Your task to perform on an android device: Check the weather Image 0: 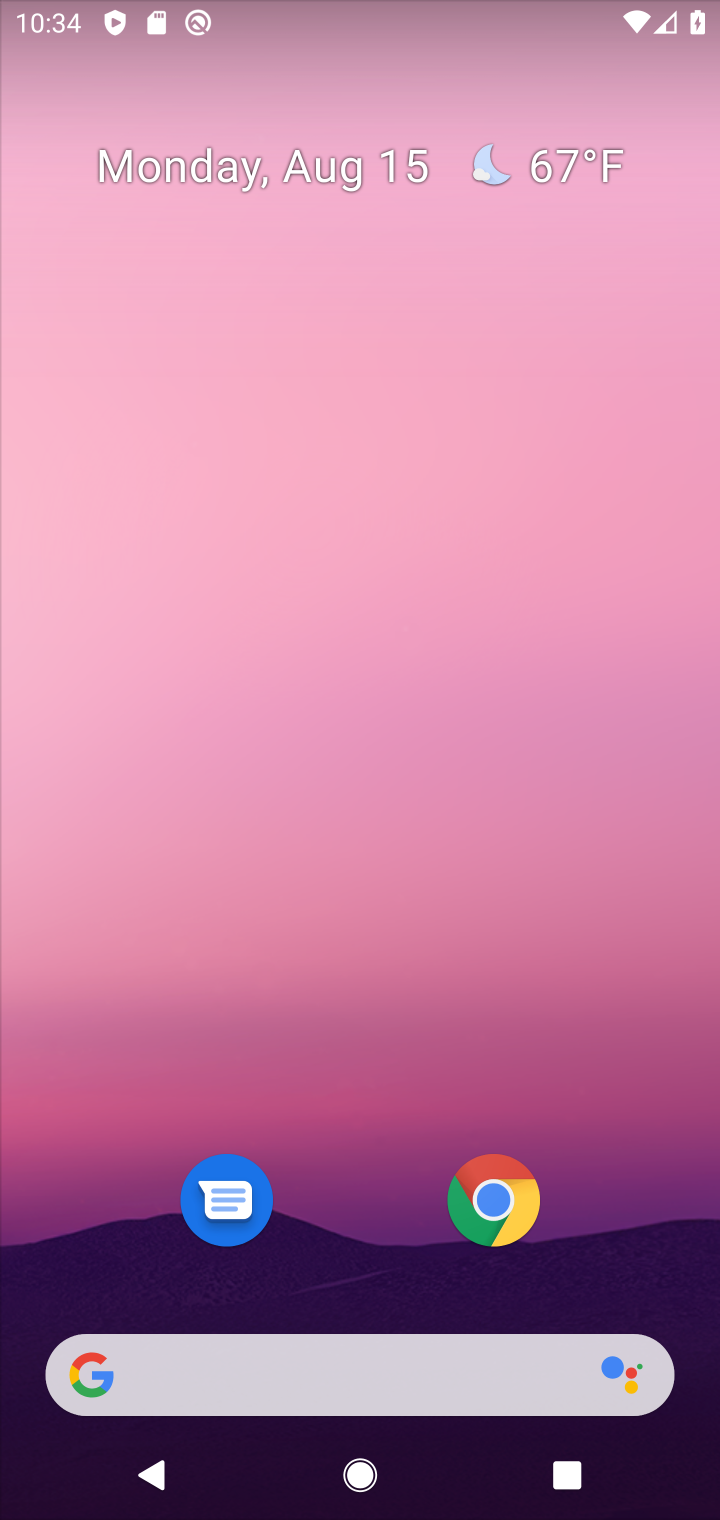
Step 0: click (558, 164)
Your task to perform on an android device: Check the weather Image 1: 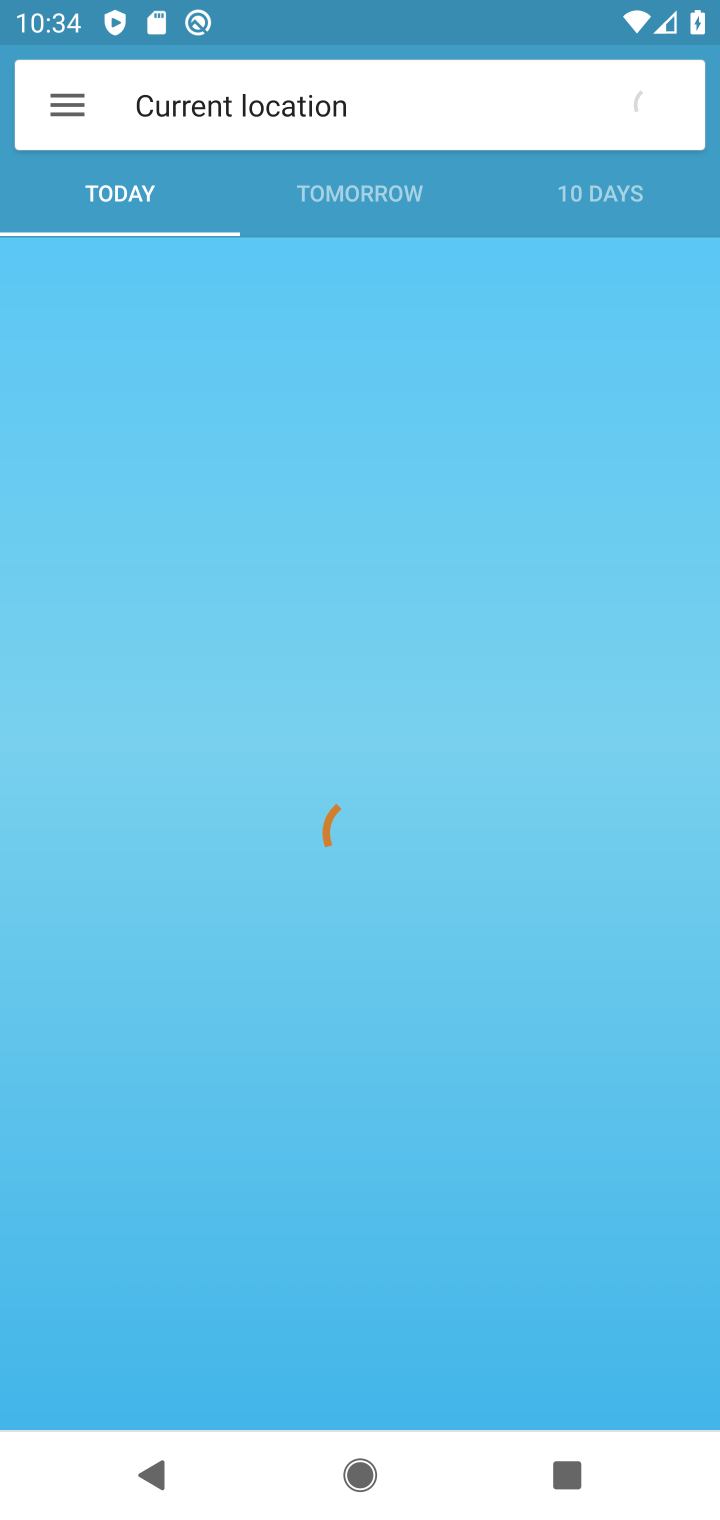
Step 1: click (558, 166)
Your task to perform on an android device: Check the weather Image 2: 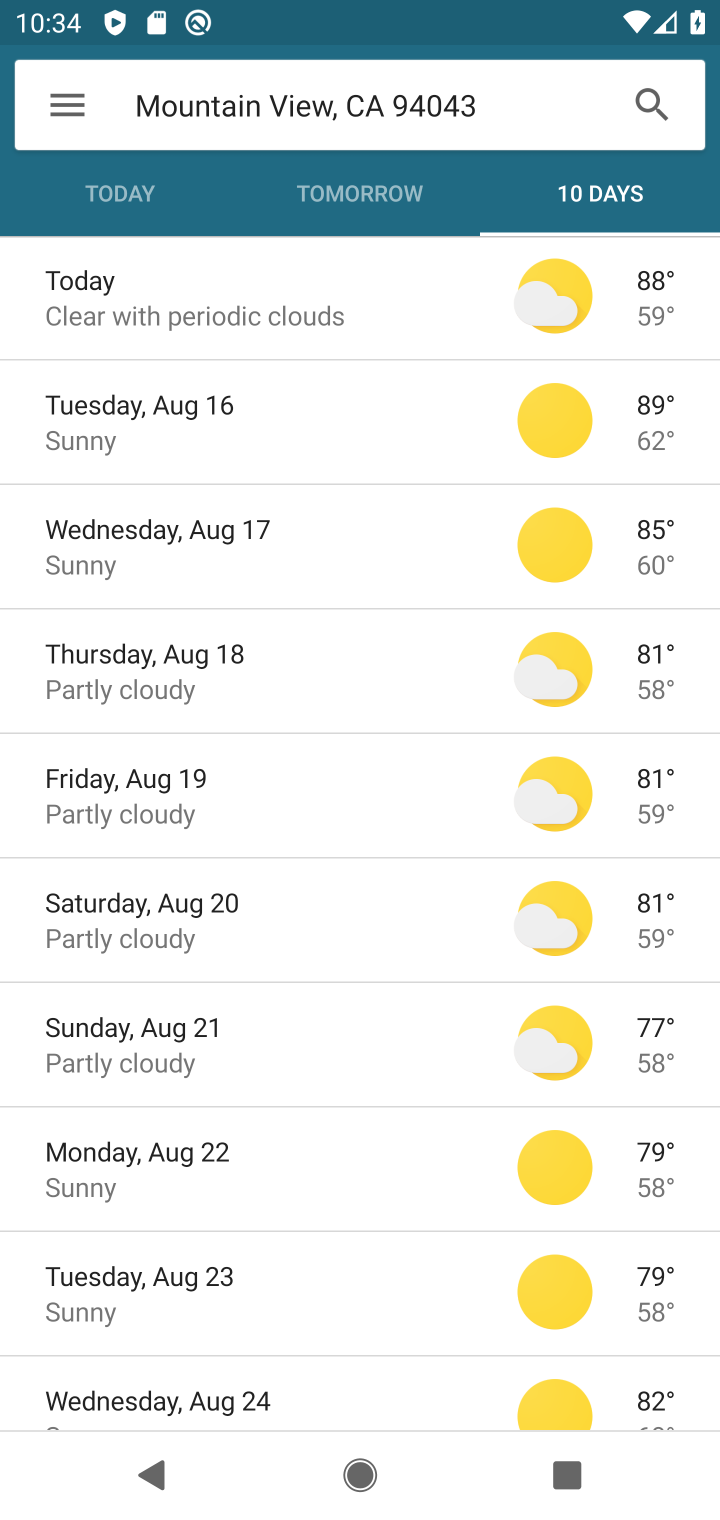
Step 2: click (93, 199)
Your task to perform on an android device: Check the weather Image 3: 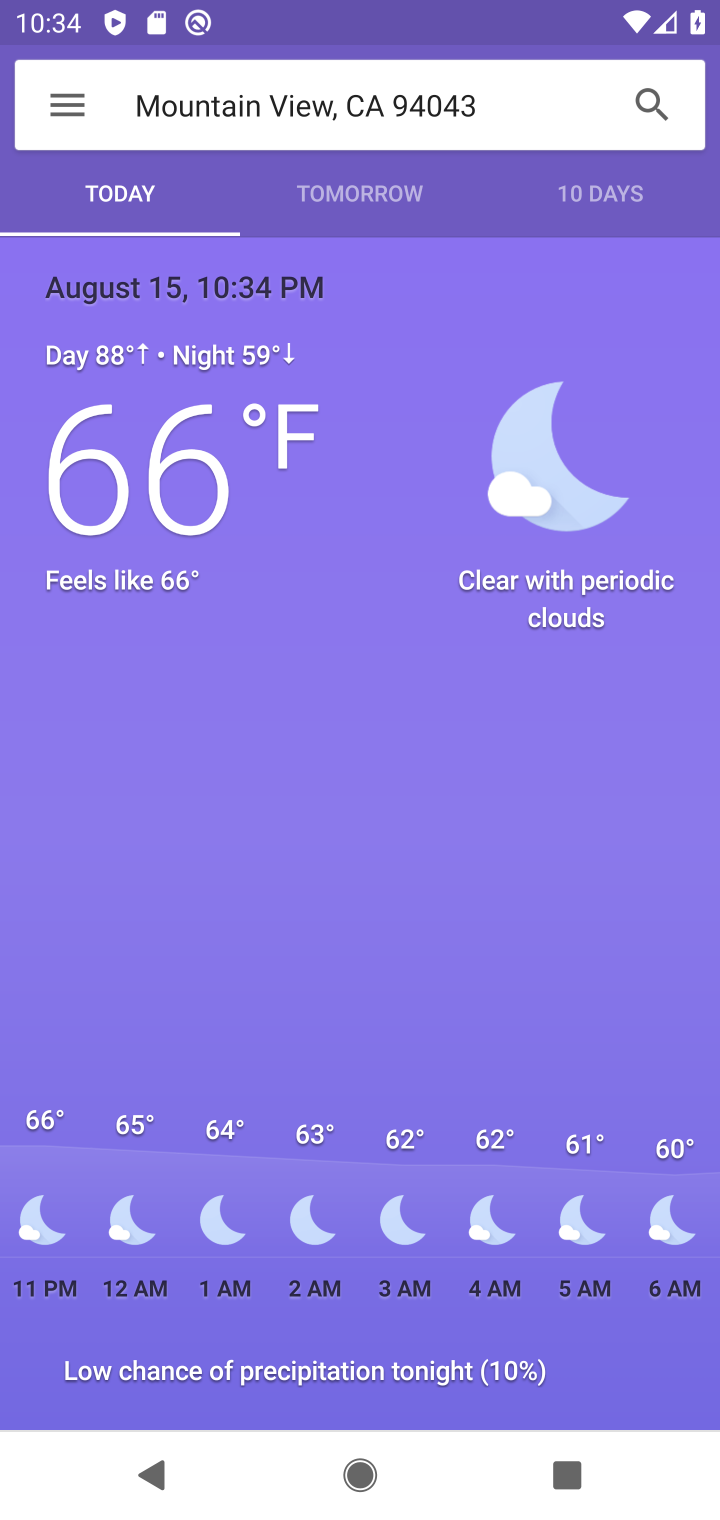
Step 3: task complete